Your task to perform on an android device: turn on notifications settings in the gmail app Image 0: 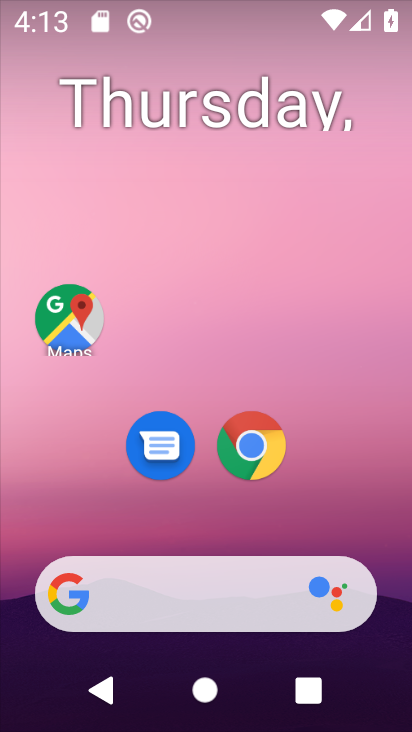
Step 0: drag from (333, 490) to (326, 47)
Your task to perform on an android device: turn on notifications settings in the gmail app Image 1: 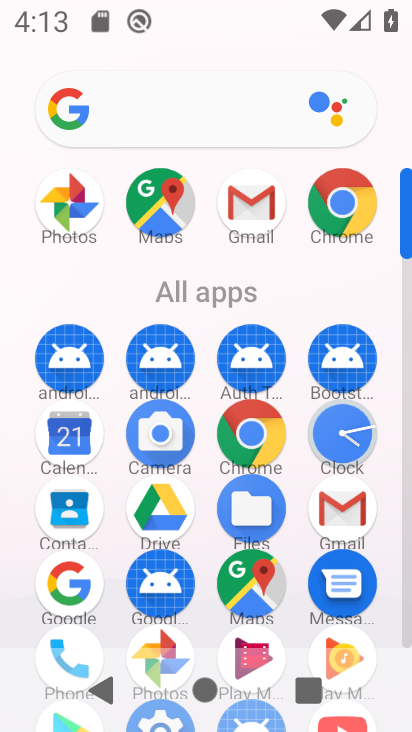
Step 1: drag from (312, 313) to (283, 73)
Your task to perform on an android device: turn on notifications settings in the gmail app Image 2: 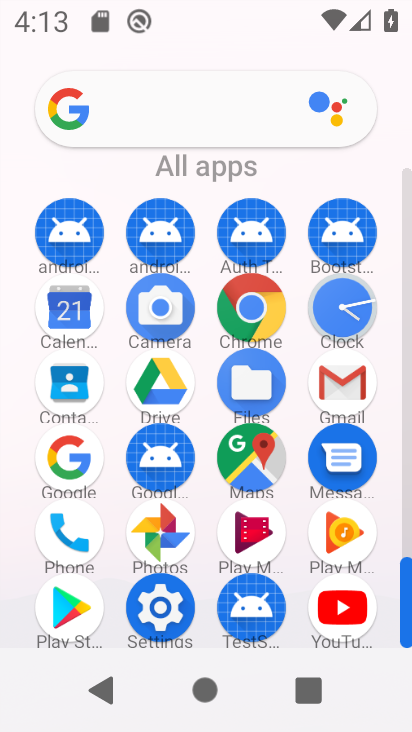
Step 2: click (338, 373)
Your task to perform on an android device: turn on notifications settings in the gmail app Image 3: 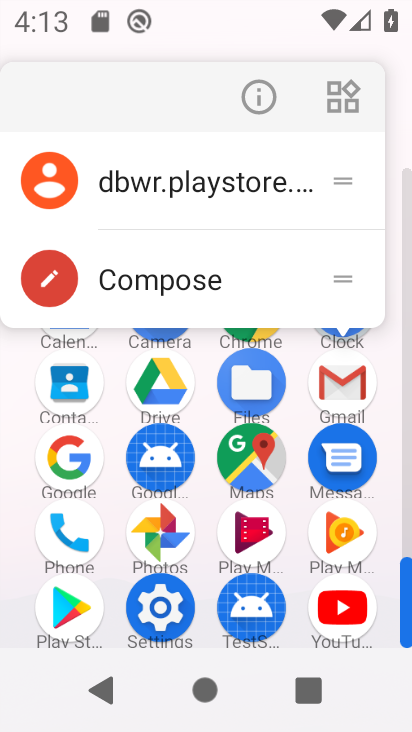
Step 3: click (253, 93)
Your task to perform on an android device: turn on notifications settings in the gmail app Image 4: 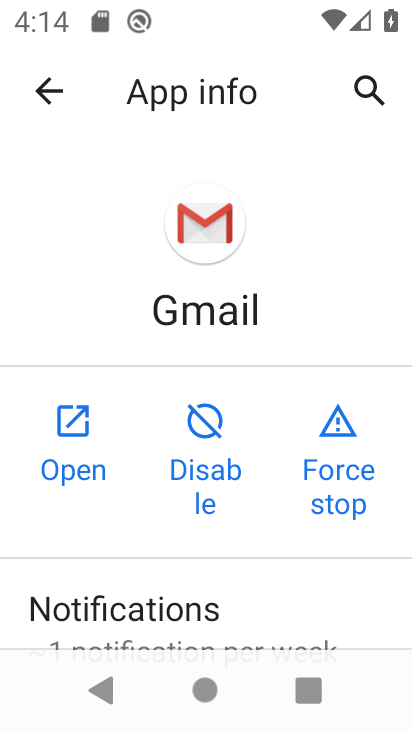
Step 4: drag from (240, 539) to (245, 249)
Your task to perform on an android device: turn on notifications settings in the gmail app Image 5: 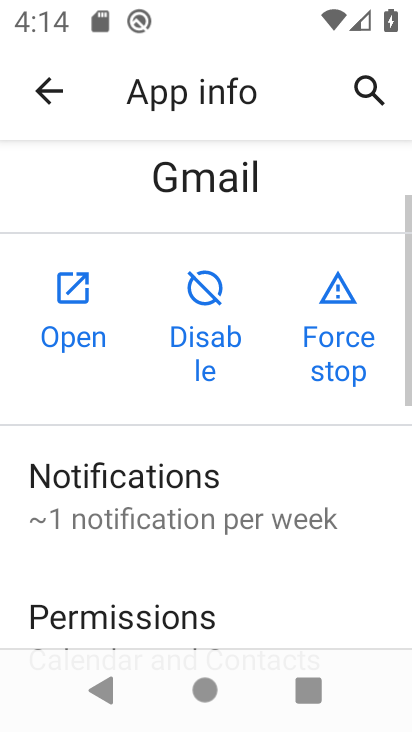
Step 5: drag from (287, 523) to (287, 255)
Your task to perform on an android device: turn on notifications settings in the gmail app Image 6: 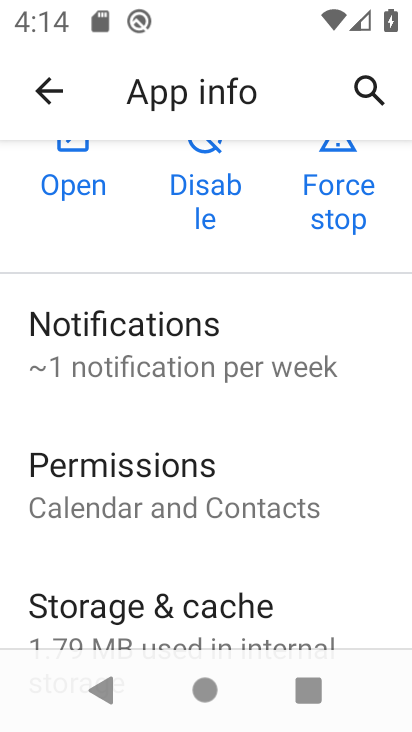
Step 6: click (144, 353)
Your task to perform on an android device: turn on notifications settings in the gmail app Image 7: 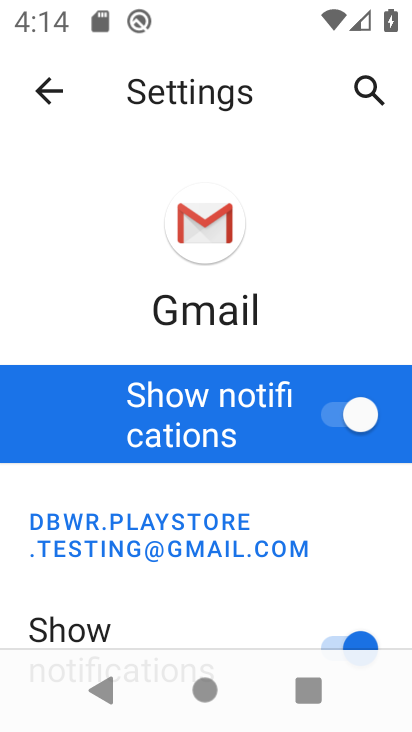
Step 7: task complete